Your task to perform on an android device: empty trash in google photos Image 0: 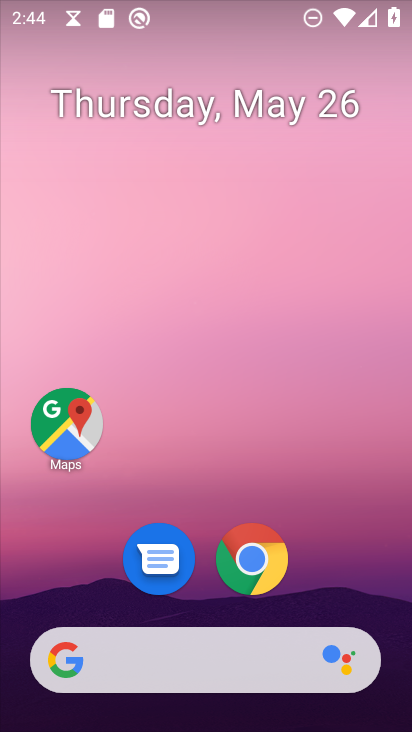
Step 0: drag from (239, 645) to (347, 109)
Your task to perform on an android device: empty trash in google photos Image 1: 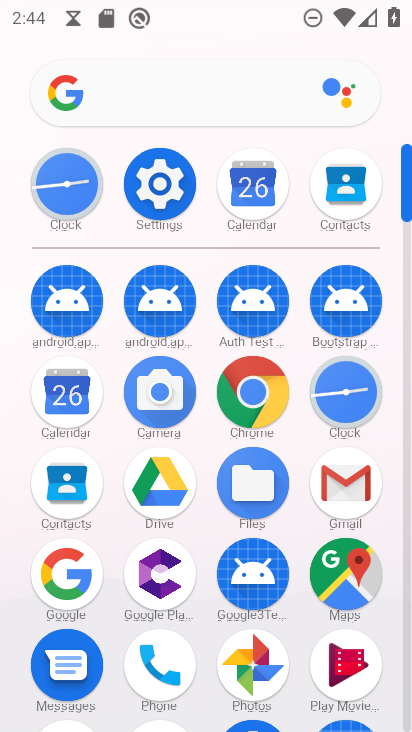
Step 1: click (254, 648)
Your task to perform on an android device: empty trash in google photos Image 2: 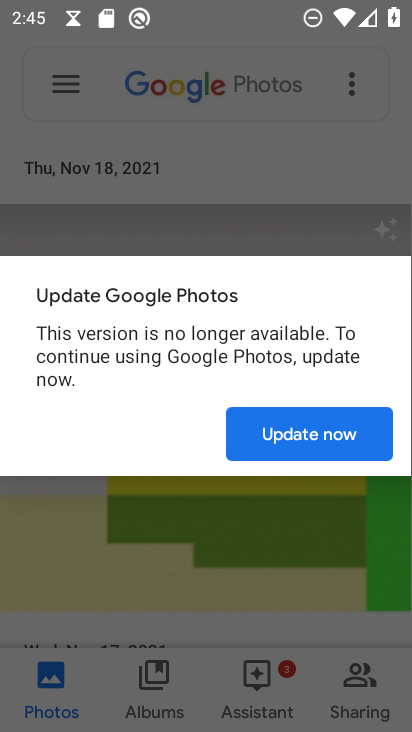
Step 2: click (268, 439)
Your task to perform on an android device: empty trash in google photos Image 3: 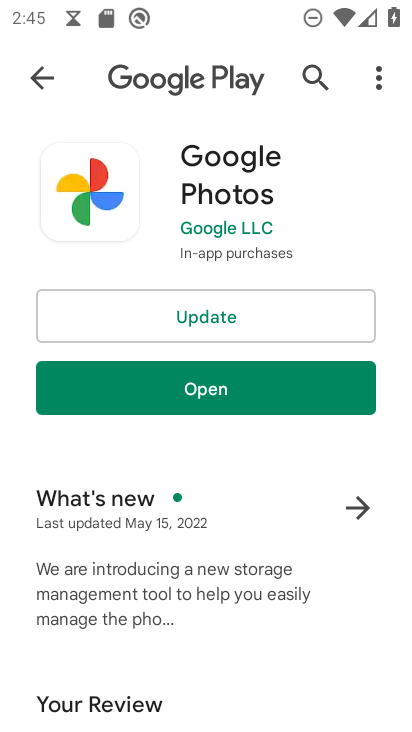
Step 3: click (264, 392)
Your task to perform on an android device: empty trash in google photos Image 4: 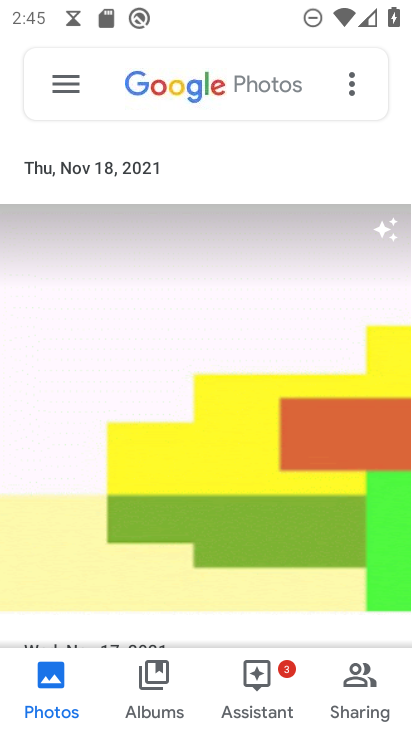
Step 4: click (68, 80)
Your task to perform on an android device: empty trash in google photos Image 5: 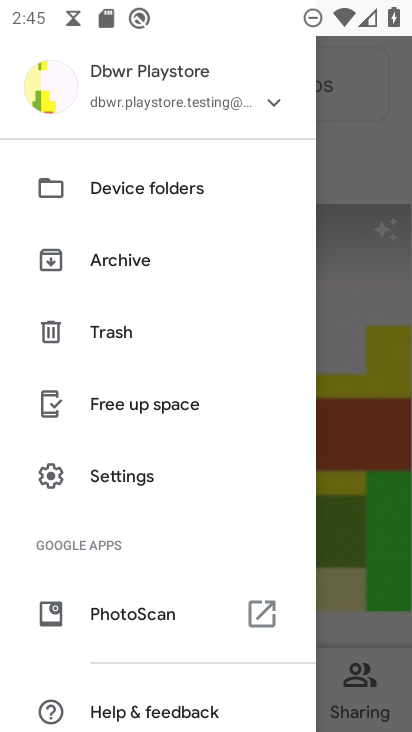
Step 5: click (126, 329)
Your task to perform on an android device: empty trash in google photos Image 6: 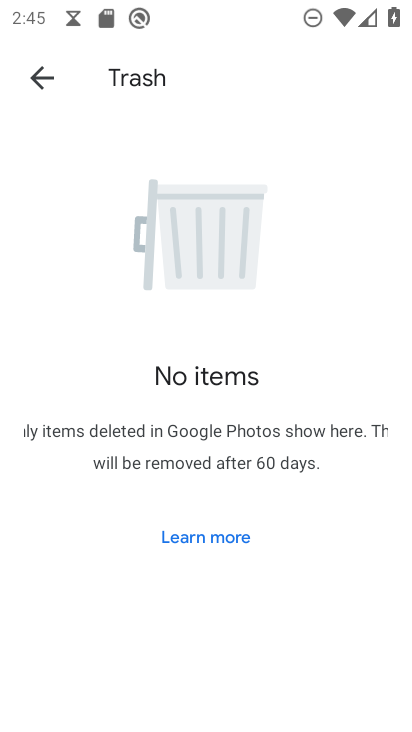
Step 6: task complete